Your task to perform on an android device: See recent photos Image 0: 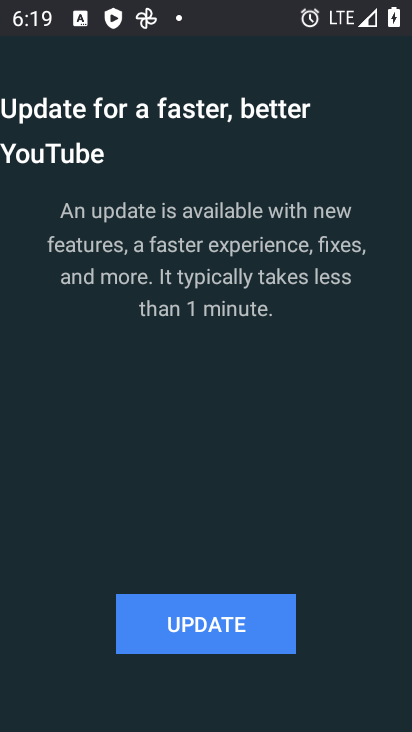
Step 0: press home button
Your task to perform on an android device: See recent photos Image 1: 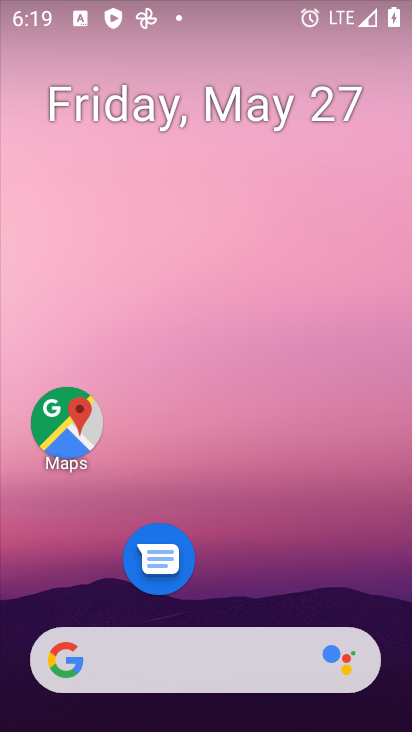
Step 1: drag from (236, 628) to (305, 129)
Your task to perform on an android device: See recent photos Image 2: 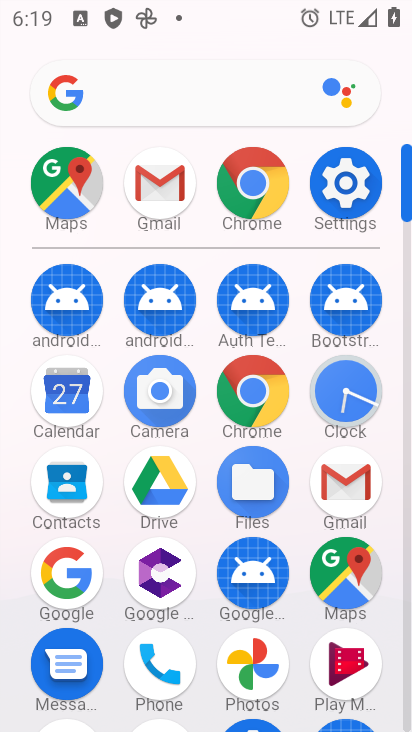
Step 2: click (257, 669)
Your task to perform on an android device: See recent photos Image 3: 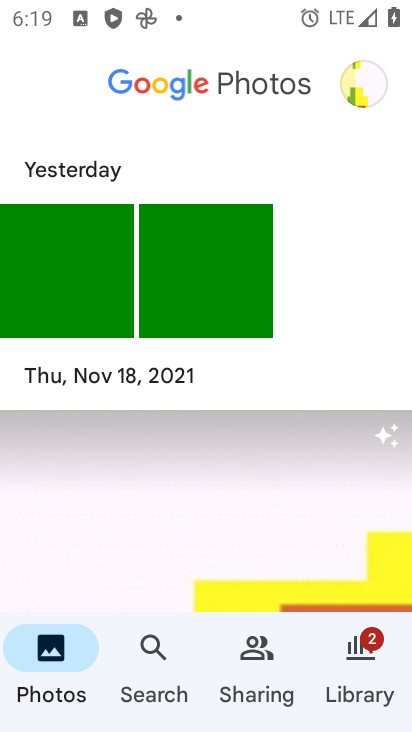
Step 3: task complete